Your task to perform on an android device: Show me popular games on the Play Store Image 0: 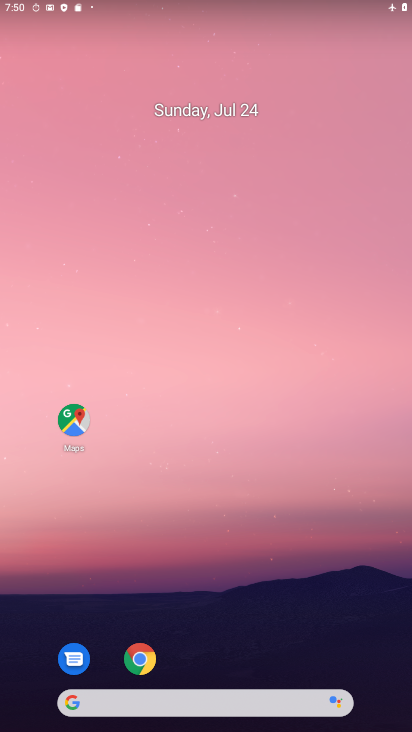
Step 0: drag from (333, 442) to (367, 178)
Your task to perform on an android device: Show me popular games on the Play Store Image 1: 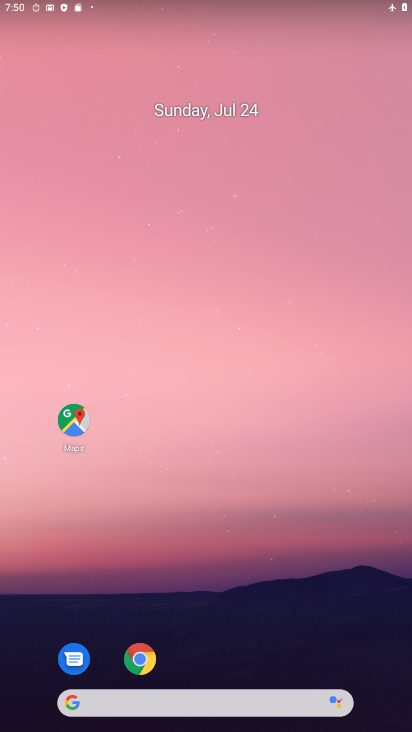
Step 1: drag from (223, 669) to (113, 155)
Your task to perform on an android device: Show me popular games on the Play Store Image 2: 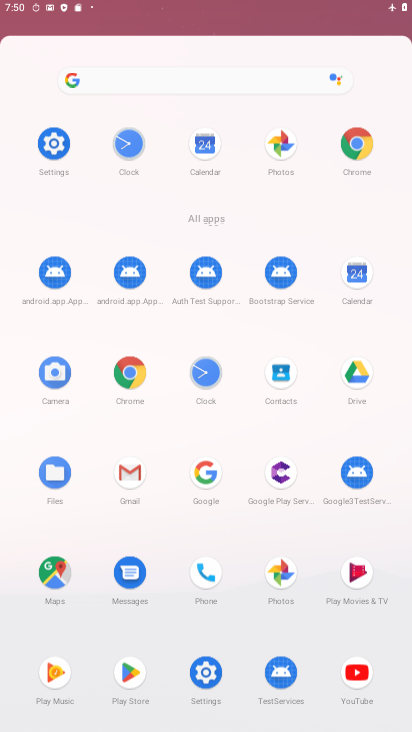
Step 2: drag from (168, 698) to (131, 251)
Your task to perform on an android device: Show me popular games on the Play Store Image 3: 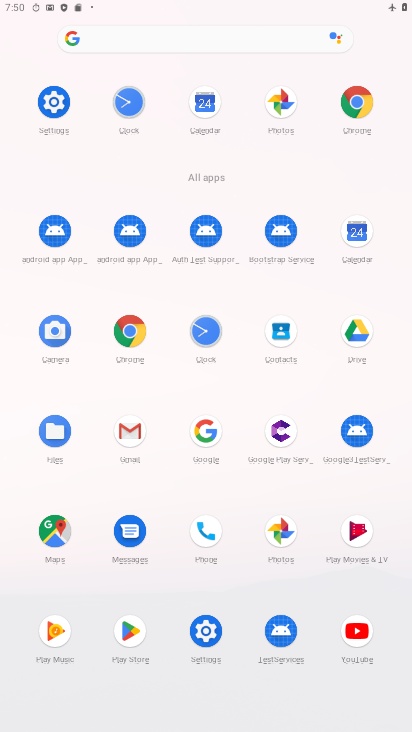
Step 3: click (122, 623)
Your task to perform on an android device: Show me popular games on the Play Store Image 4: 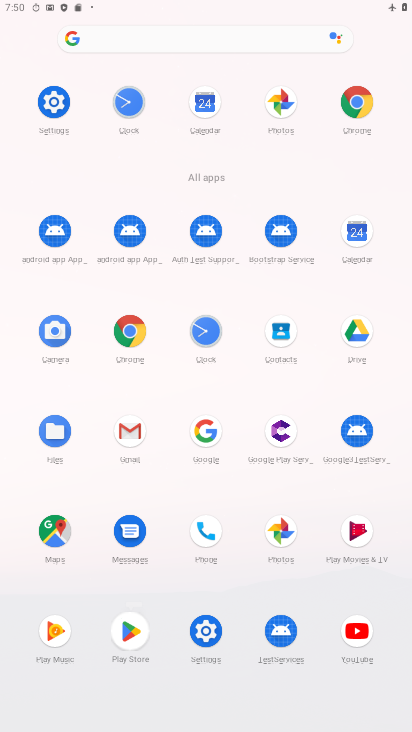
Step 4: click (126, 619)
Your task to perform on an android device: Show me popular games on the Play Store Image 5: 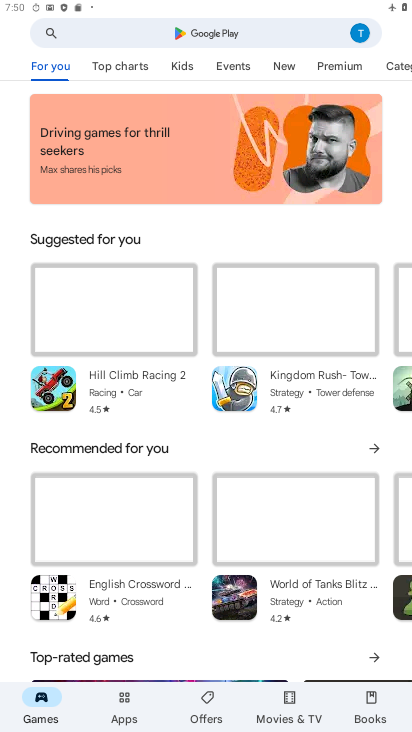
Step 5: click (251, 30)
Your task to perform on an android device: Show me popular games on the Play Store Image 6: 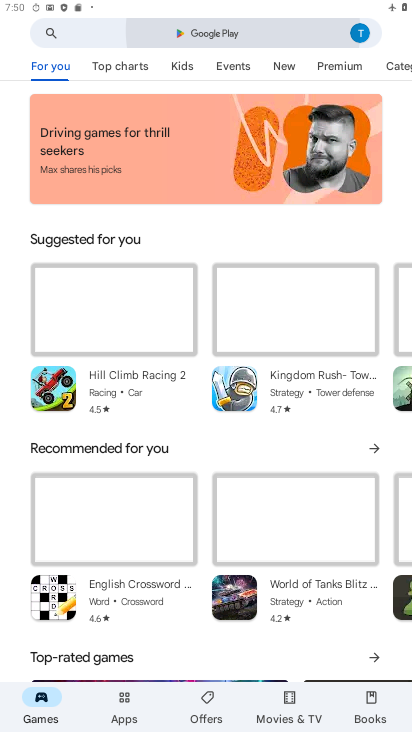
Step 6: click (244, 31)
Your task to perform on an android device: Show me popular games on the Play Store Image 7: 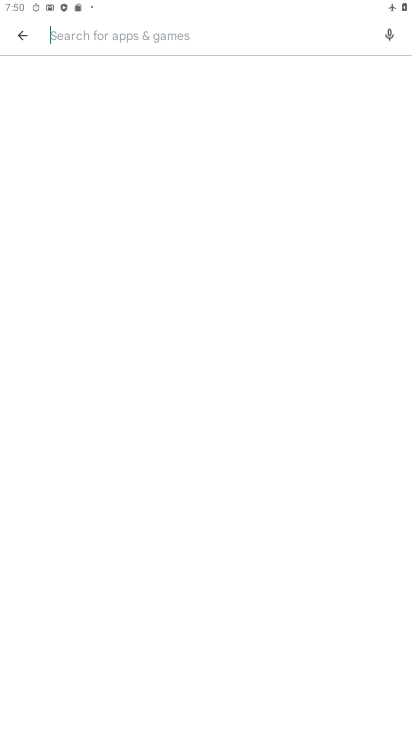
Step 7: click (227, 40)
Your task to perform on an android device: Show me popular games on the Play Store Image 8: 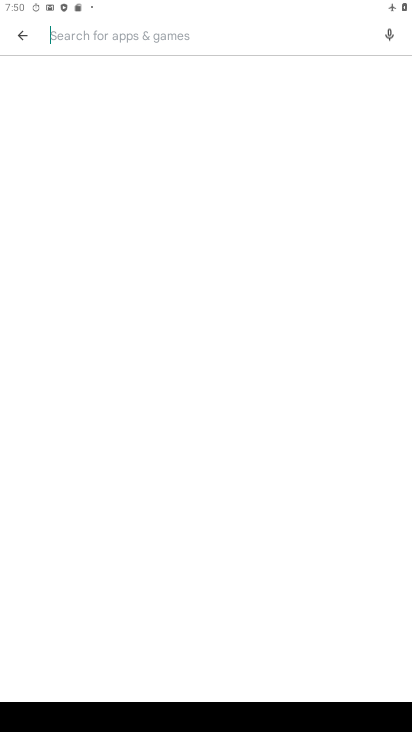
Step 8: type "popular games"
Your task to perform on an android device: Show me popular games on the Play Store Image 9: 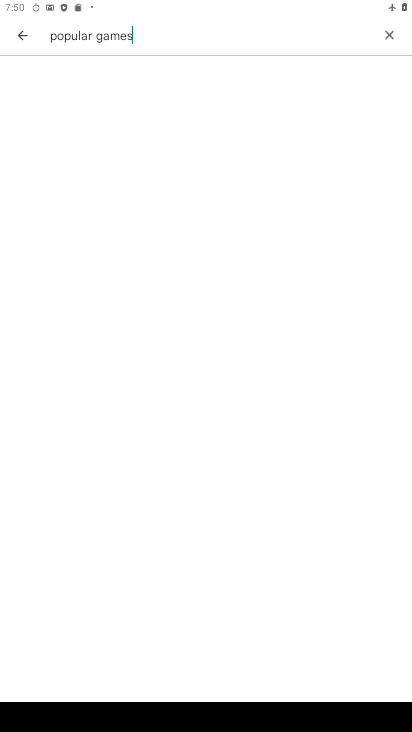
Step 9: click (142, 44)
Your task to perform on an android device: Show me popular games on the Play Store Image 10: 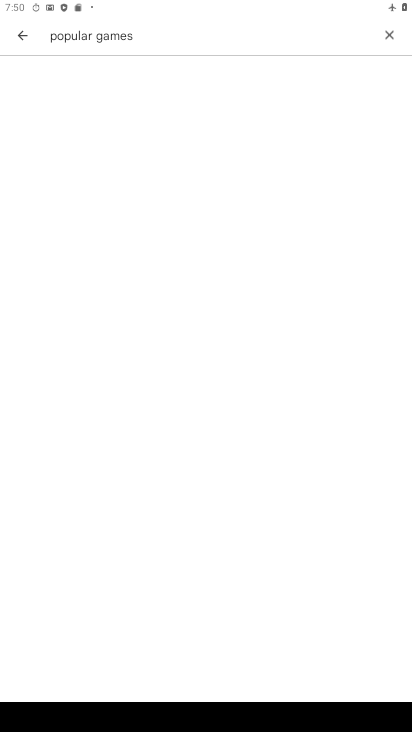
Step 10: click (142, 44)
Your task to perform on an android device: Show me popular games on the Play Store Image 11: 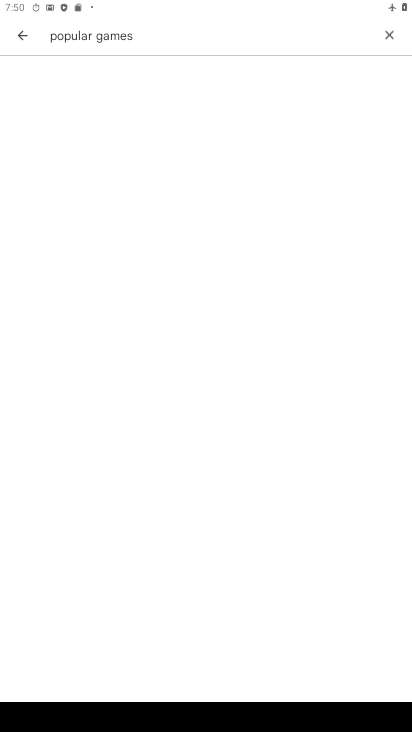
Step 11: click (142, 44)
Your task to perform on an android device: Show me popular games on the Play Store Image 12: 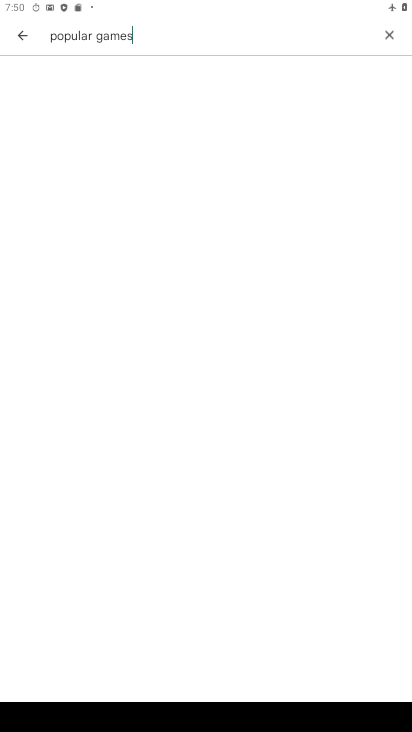
Step 12: click (142, 44)
Your task to perform on an android device: Show me popular games on the Play Store Image 13: 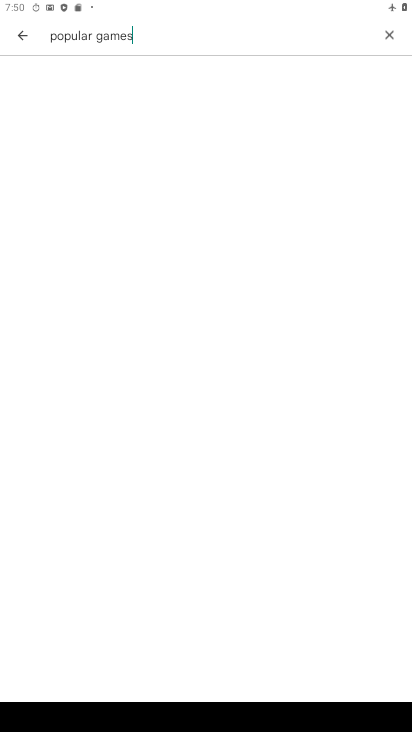
Step 13: click (142, 44)
Your task to perform on an android device: Show me popular games on the Play Store Image 14: 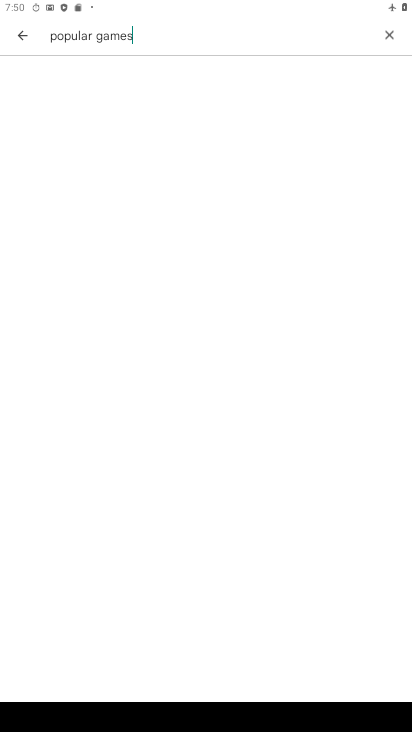
Step 14: click (395, 33)
Your task to perform on an android device: Show me popular games on the Play Store Image 15: 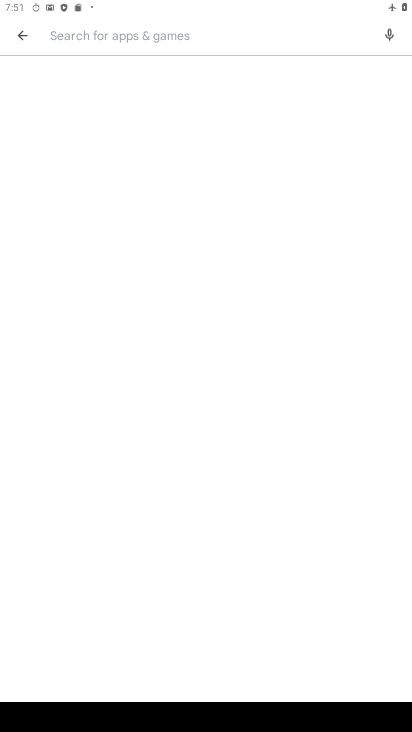
Step 15: task complete